Your task to perform on an android device: What is the recent news? Image 0: 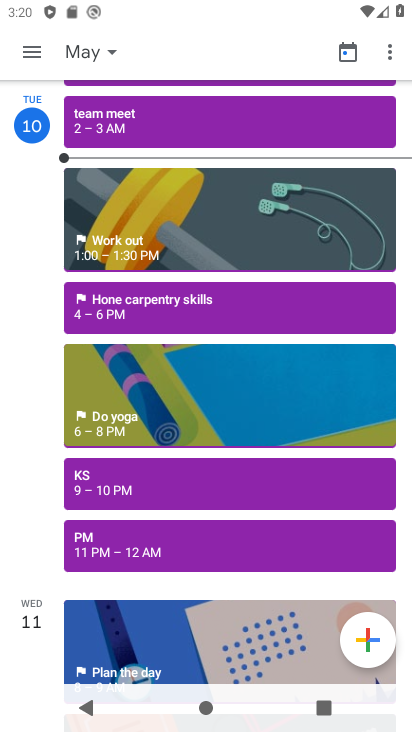
Step 0: press back button
Your task to perform on an android device: What is the recent news? Image 1: 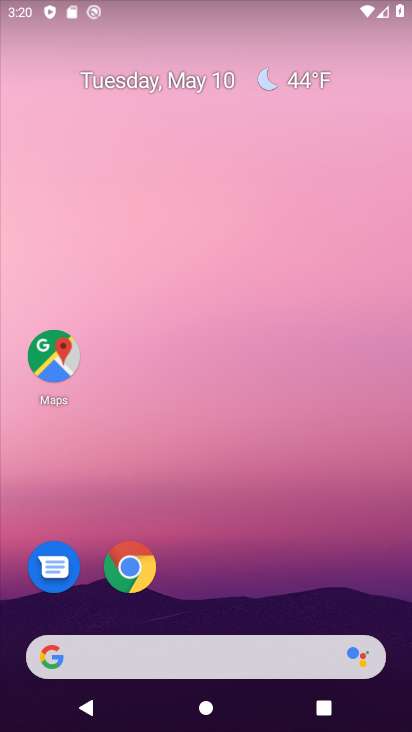
Step 1: drag from (278, 596) to (257, 10)
Your task to perform on an android device: What is the recent news? Image 2: 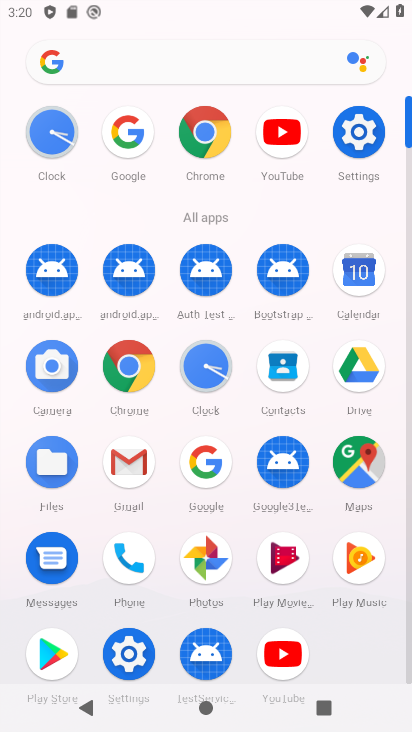
Step 2: click (199, 463)
Your task to perform on an android device: What is the recent news? Image 3: 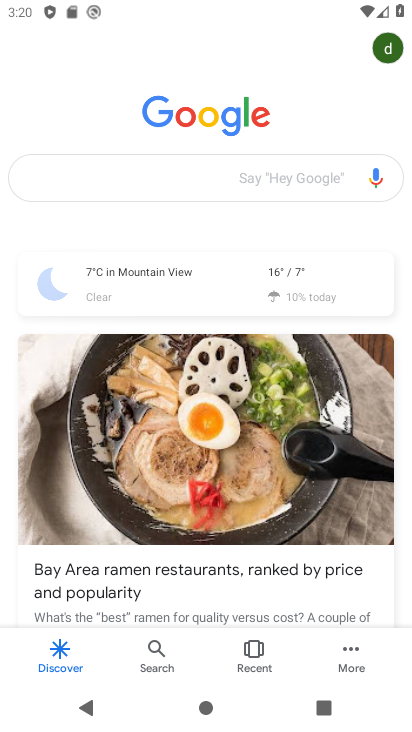
Step 3: click (147, 169)
Your task to perform on an android device: What is the recent news? Image 4: 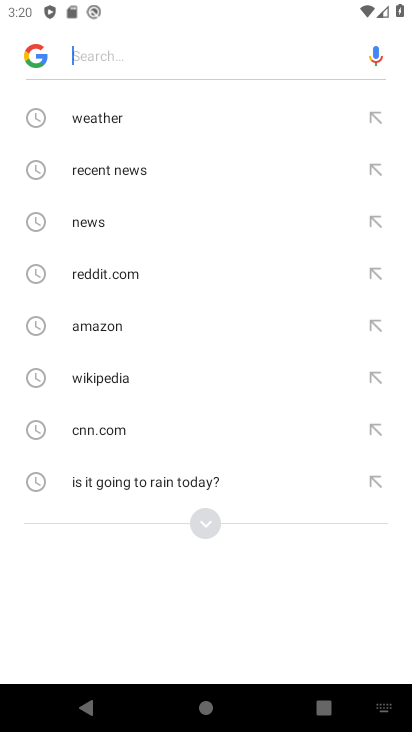
Step 4: click (97, 170)
Your task to perform on an android device: What is the recent news? Image 5: 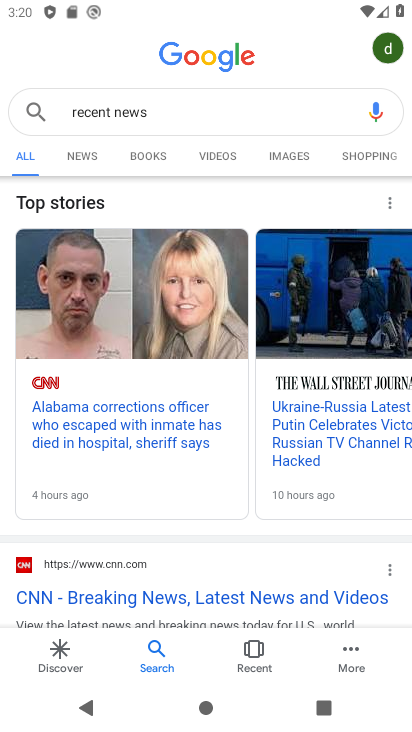
Step 5: task complete